Your task to perform on an android device: Open network settings Image 0: 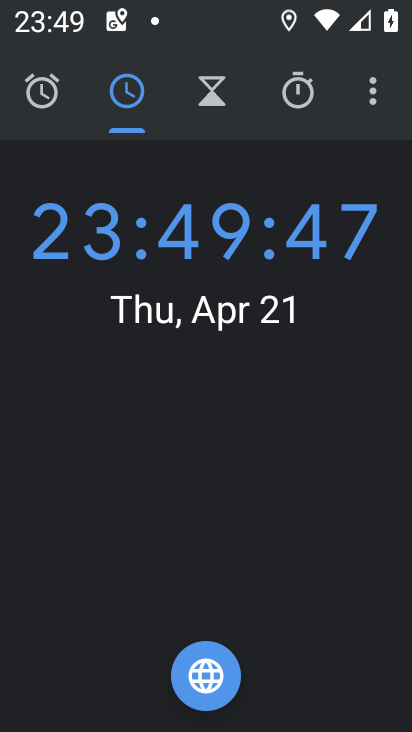
Step 0: press home button
Your task to perform on an android device: Open network settings Image 1: 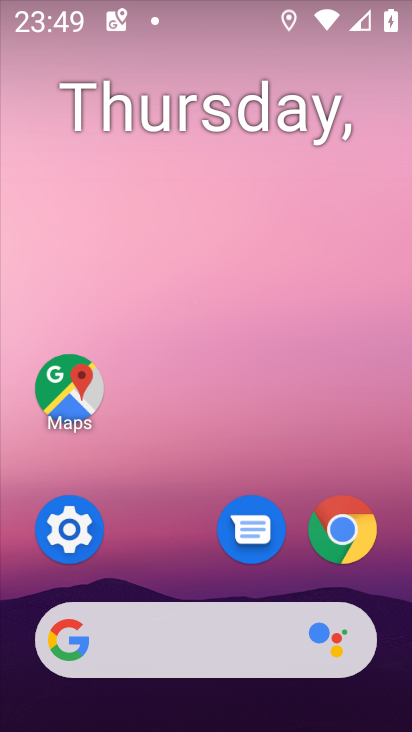
Step 1: press home button
Your task to perform on an android device: Open network settings Image 2: 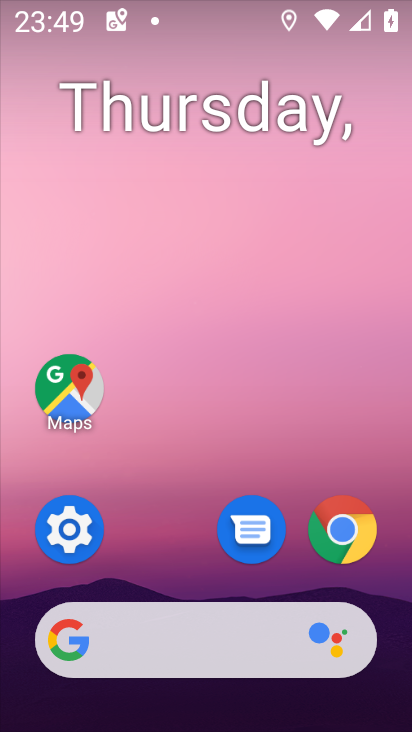
Step 2: click (68, 529)
Your task to perform on an android device: Open network settings Image 3: 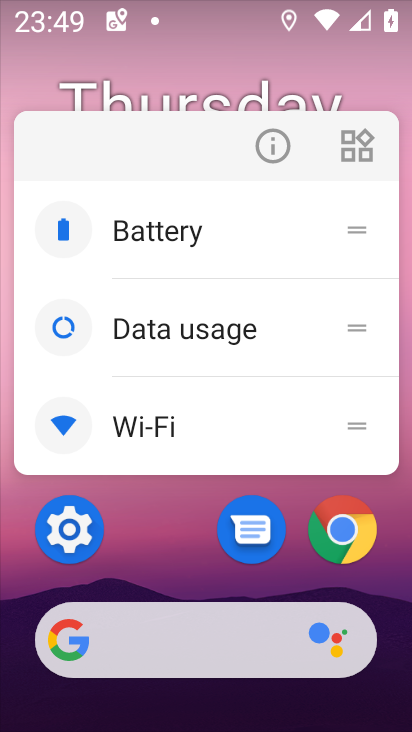
Step 3: click (68, 529)
Your task to perform on an android device: Open network settings Image 4: 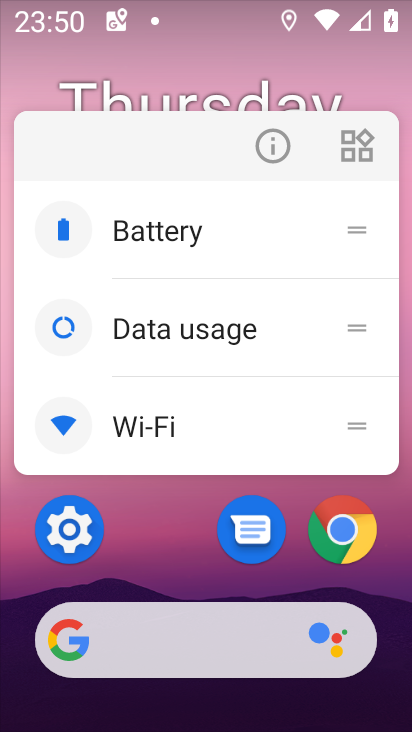
Step 4: click (68, 529)
Your task to perform on an android device: Open network settings Image 5: 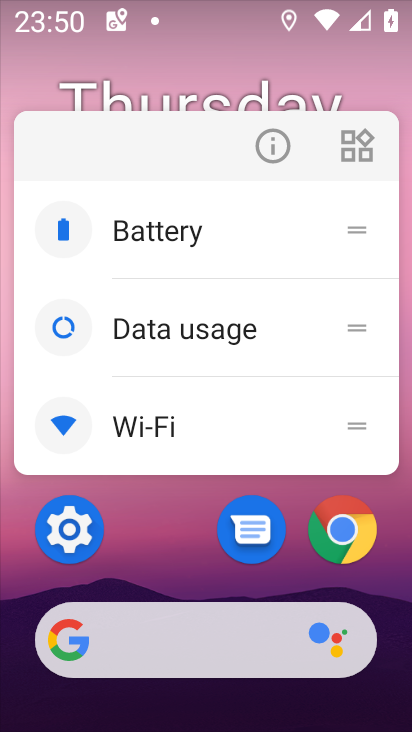
Step 5: click (68, 529)
Your task to perform on an android device: Open network settings Image 6: 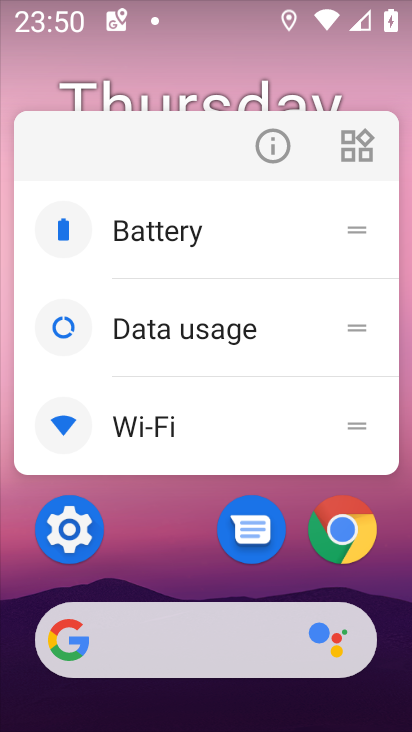
Step 6: click (68, 529)
Your task to perform on an android device: Open network settings Image 7: 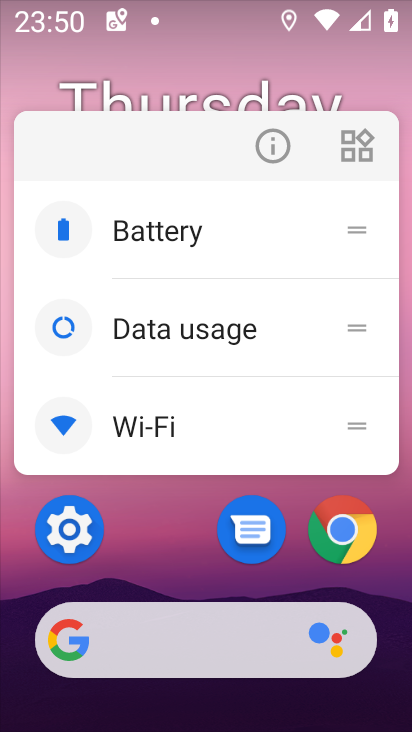
Step 7: click (68, 529)
Your task to perform on an android device: Open network settings Image 8: 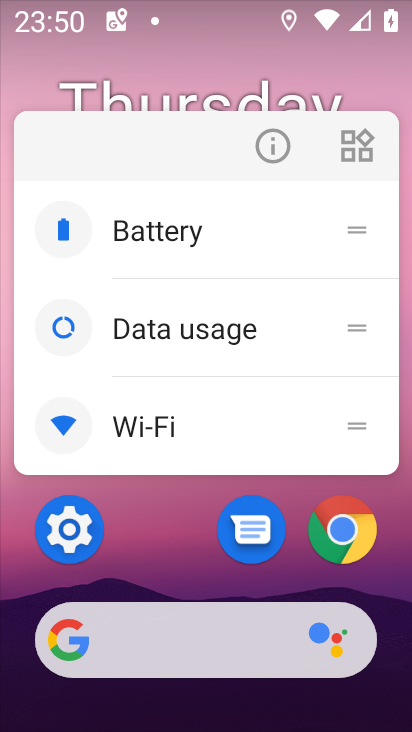
Step 8: click (68, 529)
Your task to perform on an android device: Open network settings Image 9: 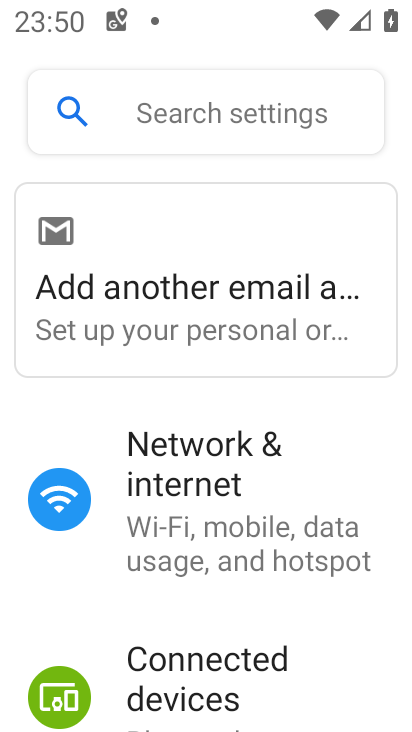
Step 9: click (68, 529)
Your task to perform on an android device: Open network settings Image 10: 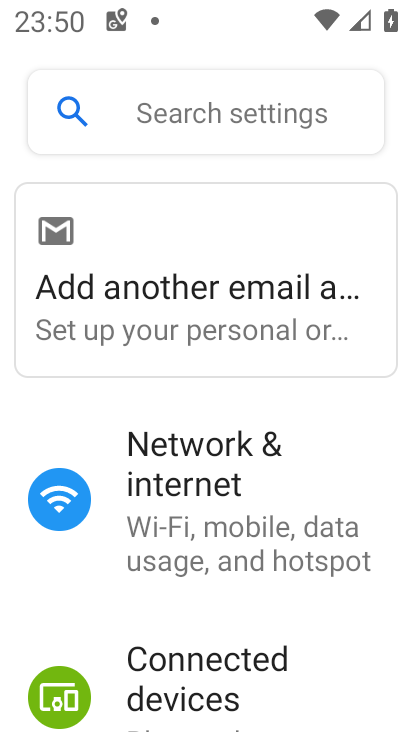
Step 10: click (68, 529)
Your task to perform on an android device: Open network settings Image 11: 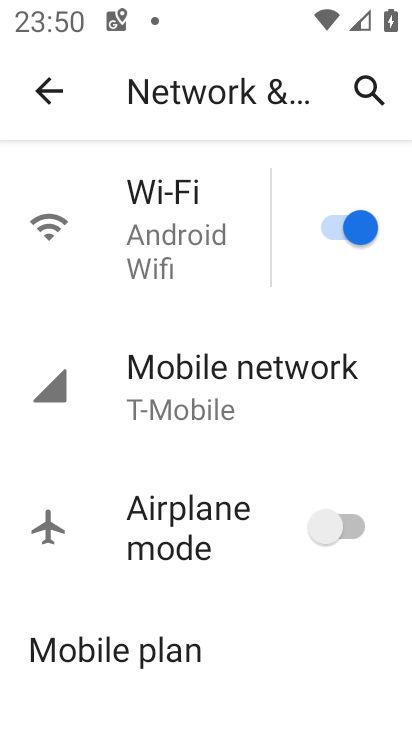
Step 11: task complete